Your task to perform on an android device: turn off airplane mode Image 0: 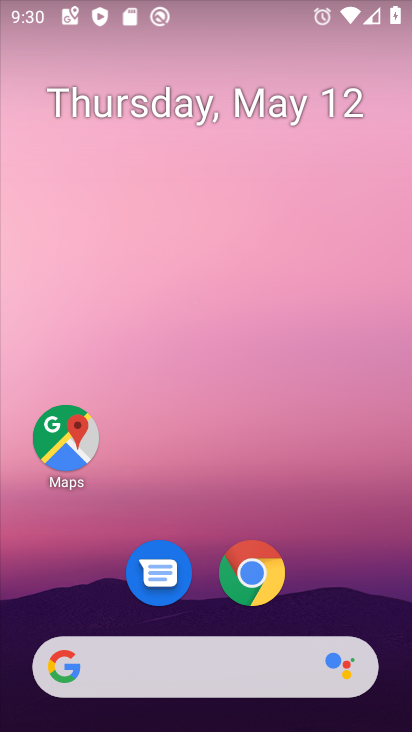
Step 0: drag from (329, 594) to (252, 152)
Your task to perform on an android device: turn off airplane mode Image 1: 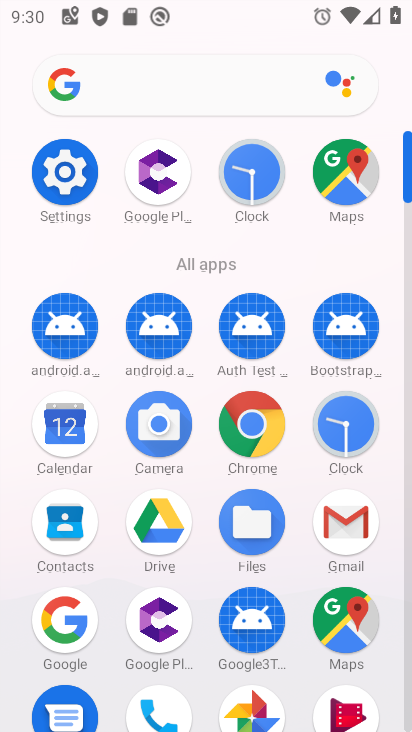
Step 1: click (62, 169)
Your task to perform on an android device: turn off airplane mode Image 2: 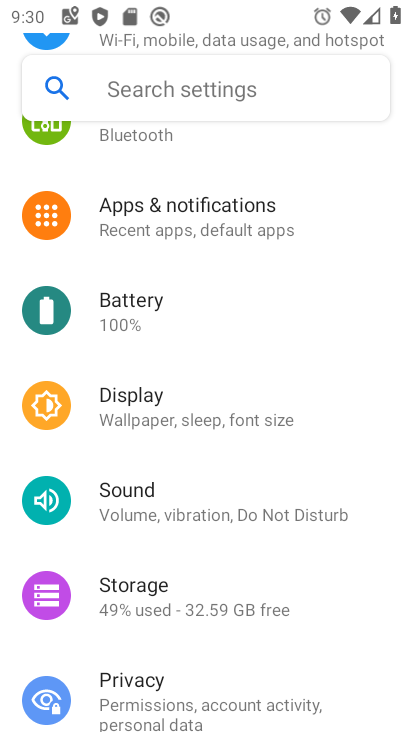
Step 2: drag from (181, 250) to (206, 364)
Your task to perform on an android device: turn off airplane mode Image 3: 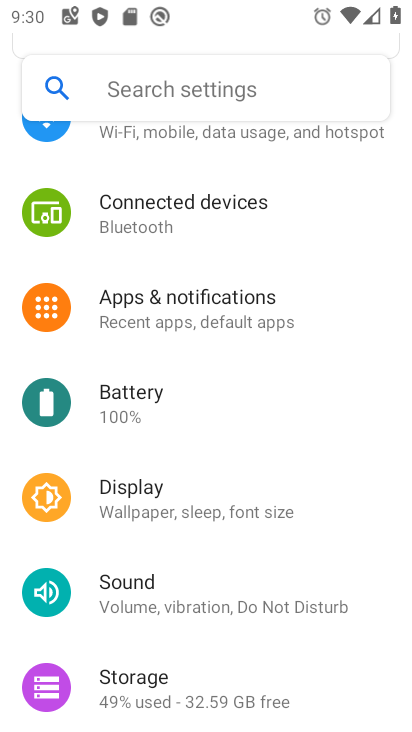
Step 3: drag from (233, 167) to (256, 319)
Your task to perform on an android device: turn off airplane mode Image 4: 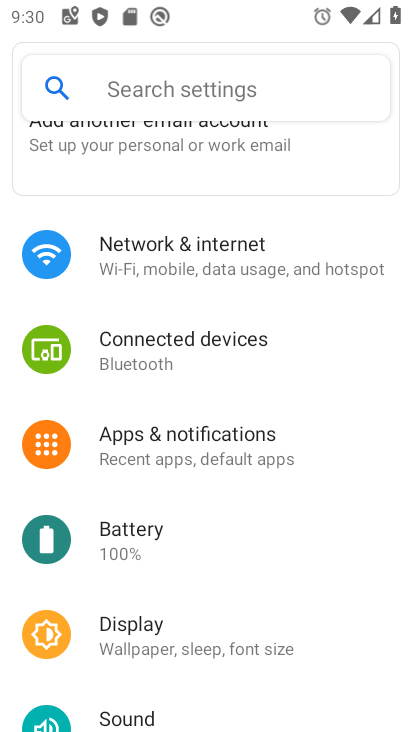
Step 4: click (199, 249)
Your task to perform on an android device: turn off airplane mode Image 5: 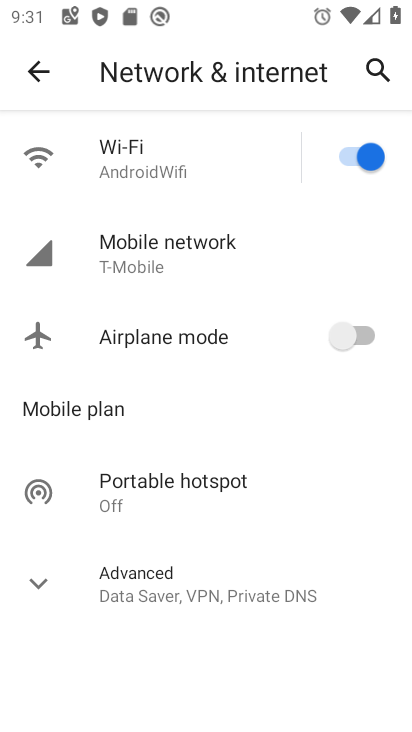
Step 5: task complete